Your task to perform on an android device: Open Yahoo.com Image 0: 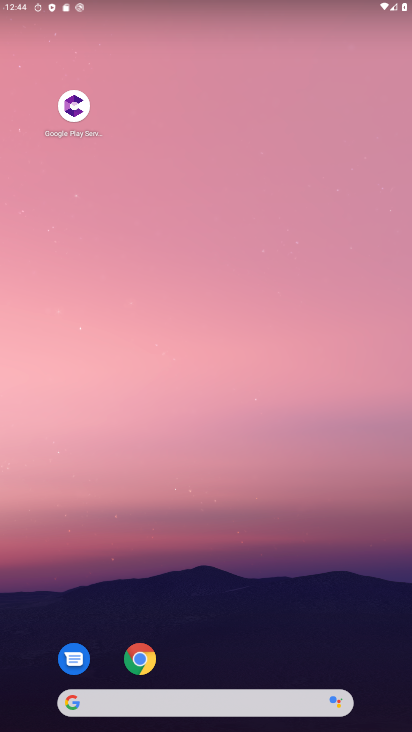
Step 0: click (140, 654)
Your task to perform on an android device: Open Yahoo.com Image 1: 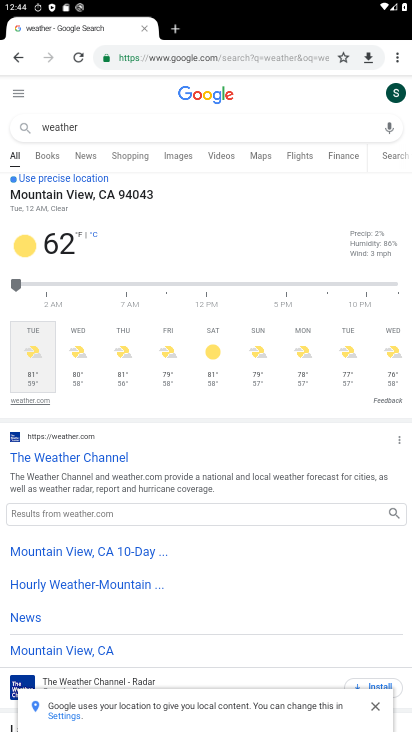
Step 1: click (162, 59)
Your task to perform on an android device: Open Yahoo.com Image 2: 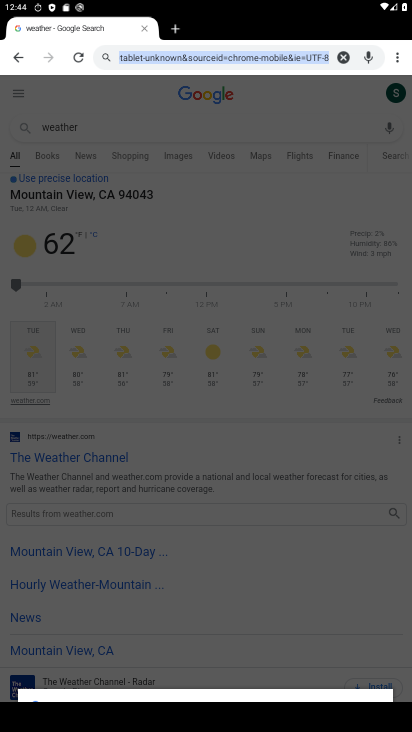
Step 2: type "yahoo.com"
Your task to perform on an android device: Open Yahoo.com Image 3: 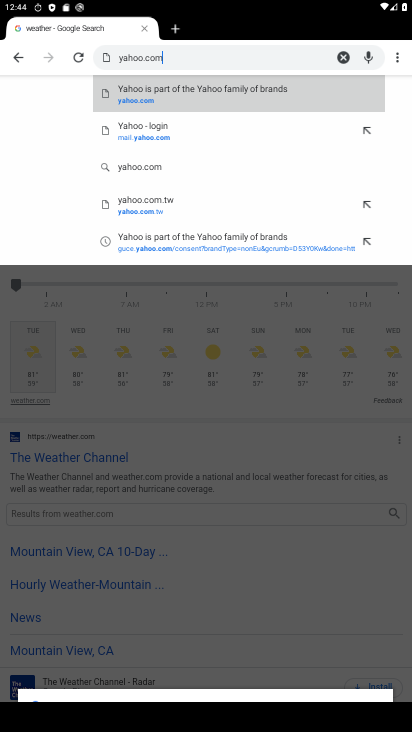
Step 3: click (151, 103)
Your task to perform on an android device: Open Yahoo.com Image 4: 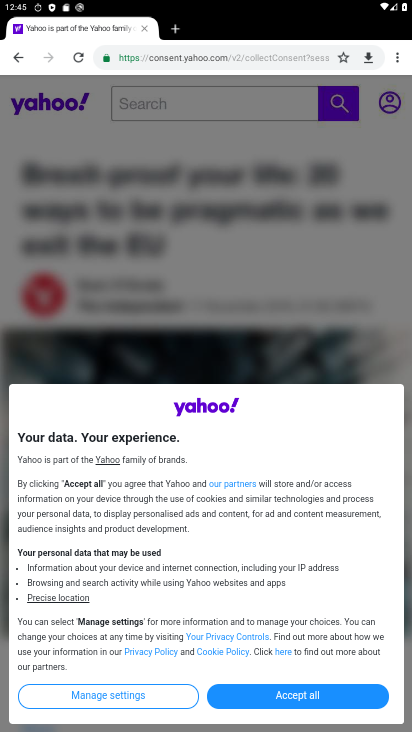
Step 4: task complete